Your task to perform on an android device: Check the weather Image 0: 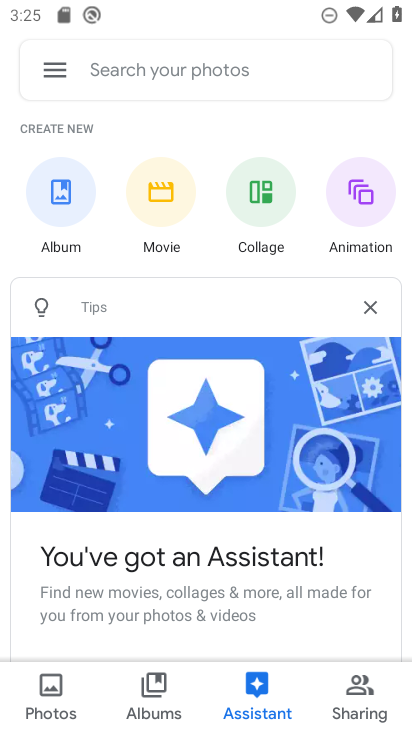
Step 0: press home button
Your task to perform on an android device: Check the weather Image 1: 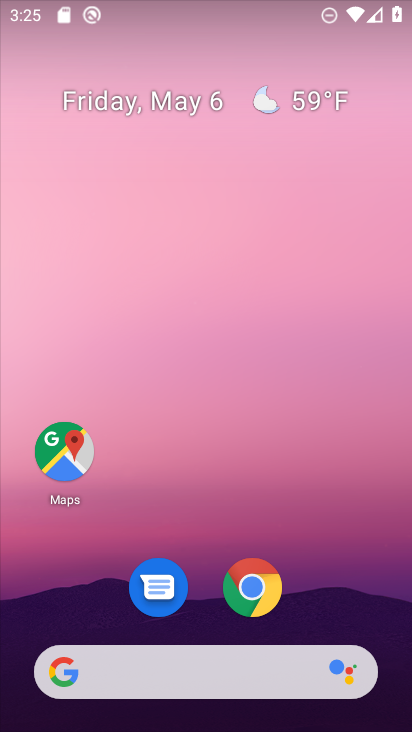
Step 1: click (299, 110)
Your task to perform on an android device: Check the weather Image 2: 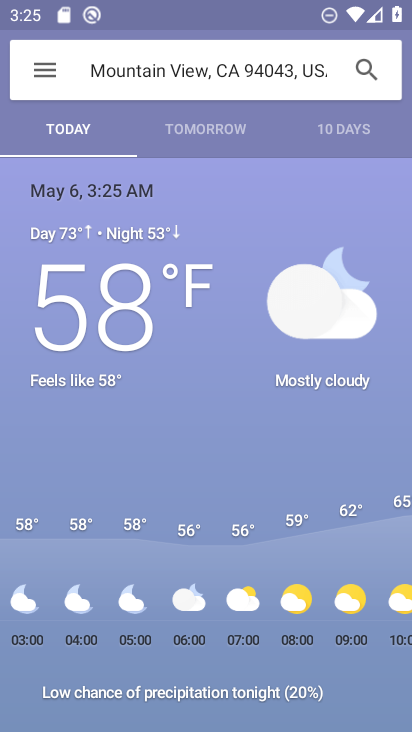
Step 2: task complete